Your task to perform on an android device: move a message to another label in the gmail app Image 0: 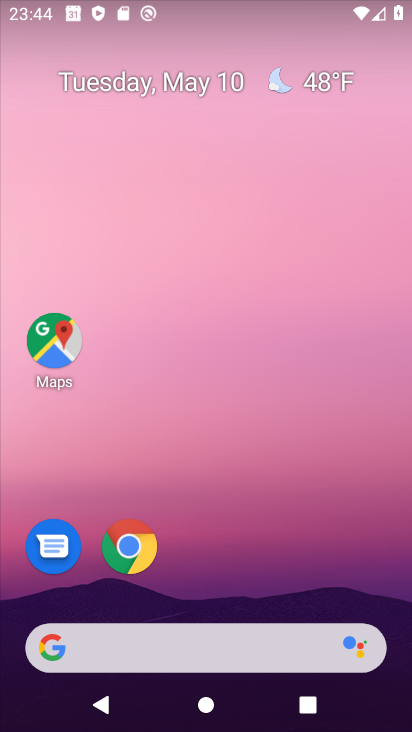
Step 0: drag from (212, 570) to (213, 168)
Your task to perform on an android device: move a message to another label in the gmail app Image 1: 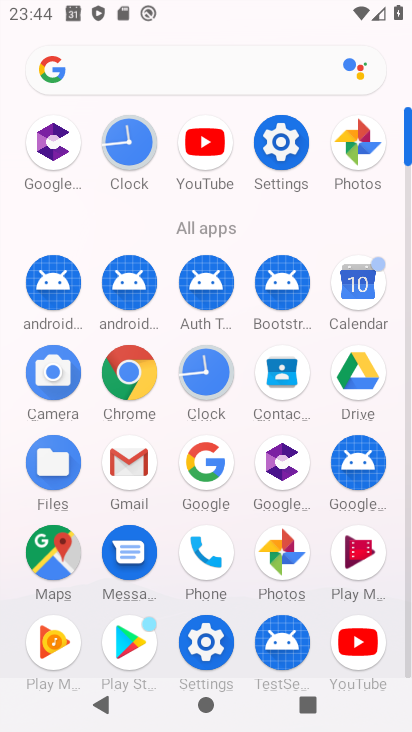
Step 1: click (148, 471)
Your task to perform on an android device: move a message to another label in the gmail app Image 2: 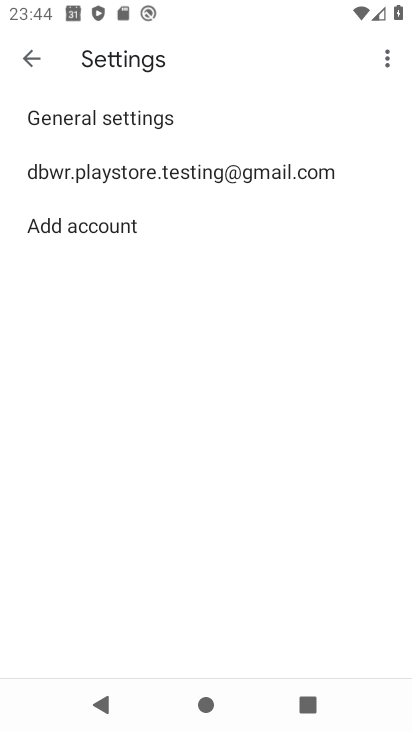
Step 2: click (39, 52)
Your task to perform on an android device: move a message to another label in the gmail app Image 3: 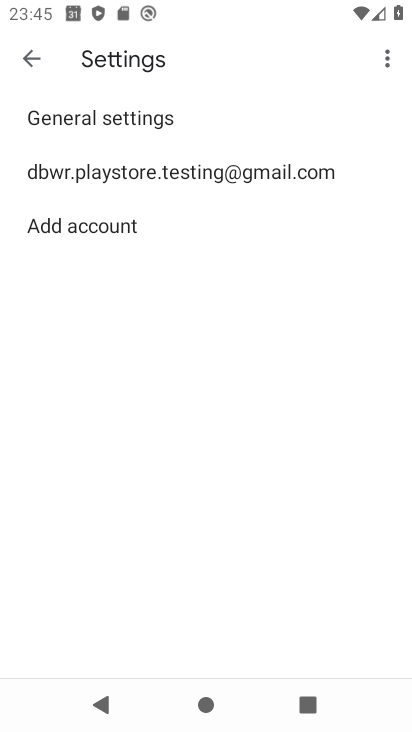
Step 3: click (31, 56)
Your task to perform on an android device: move a message to another label in the gmail app Image 4: 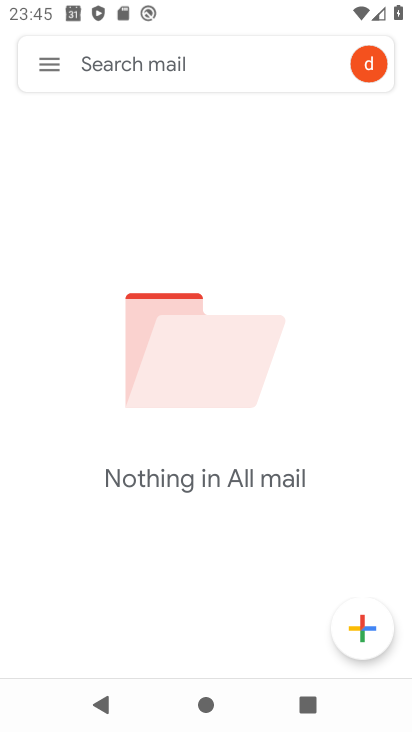
Step 4: click (62, 67)
Your task to perform on an android device: move a message to another label in the gmail app Image 5: 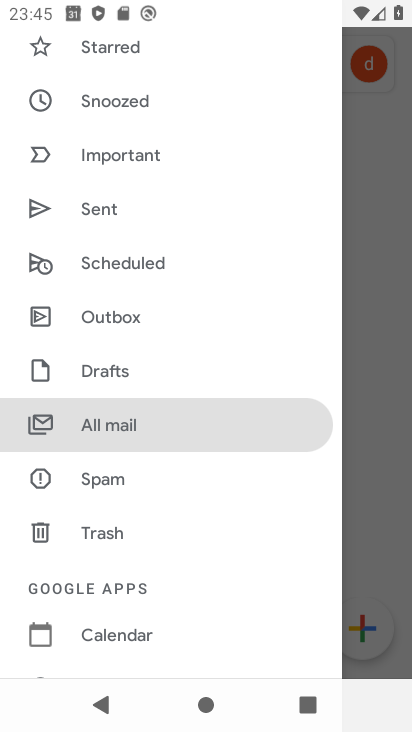
Step 5: click (148, 410)
Your task to perform on an android device: move a message to another label in the gmail app Image 6: 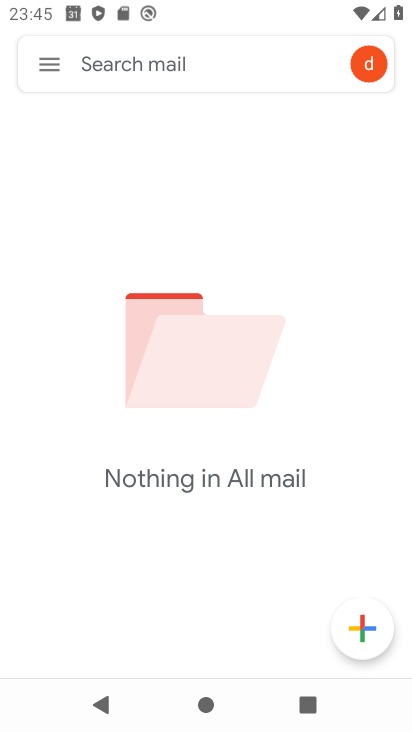
Step 6: task complete